Your task to perform on an android device: Go to Google maps Image 0: 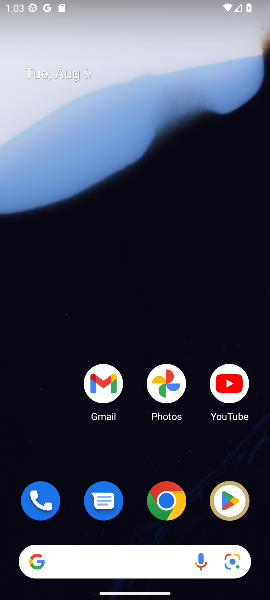
Step 0: drag from (114, 472) to (76, 151)
Your task to perform on an android device: Go to Google maps Image 1: 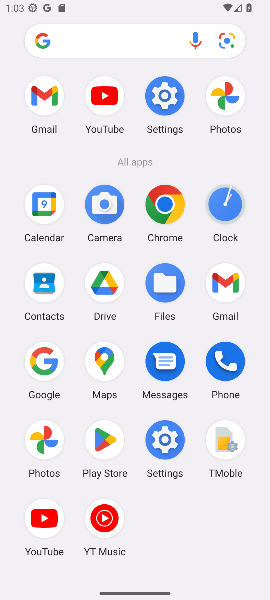
Step 1: click (108, 364)
Your task to perform on an android device: Go to Google maps Image 2: 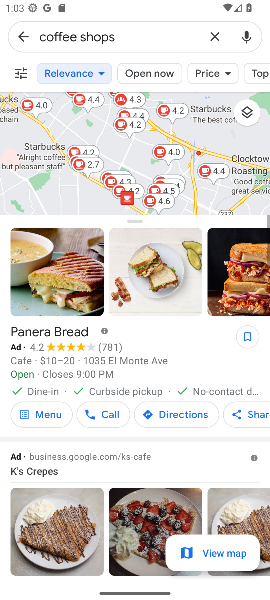
Step 2: task complete